Your task to perform on an android device: Open Google Maps and go to "Timeline" Image 0: 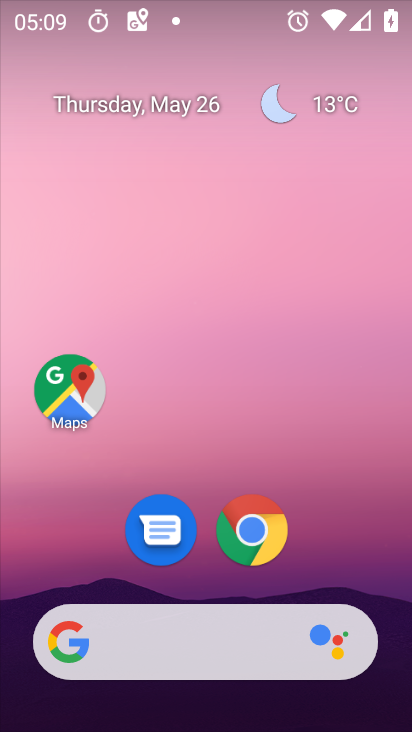
Step 0: drag from (222, 611) to (261, 82)
Your task to perform on an android device: Open Google Maps and go to "Timeline" Image 1: 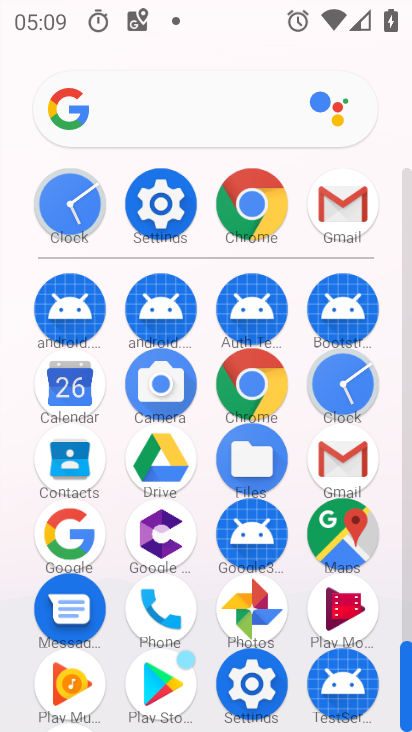
Step 1: click (323, 531)
Your task to perform on an android device: Open Google Maps and go to "Timeline" Image 2: 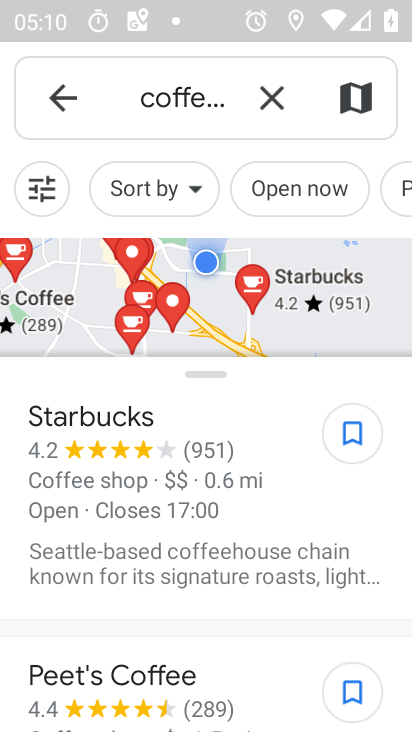
Step 2: press back button
Your task to perform on an android device: Open Google Maps and go to "Timeline" Image 3: 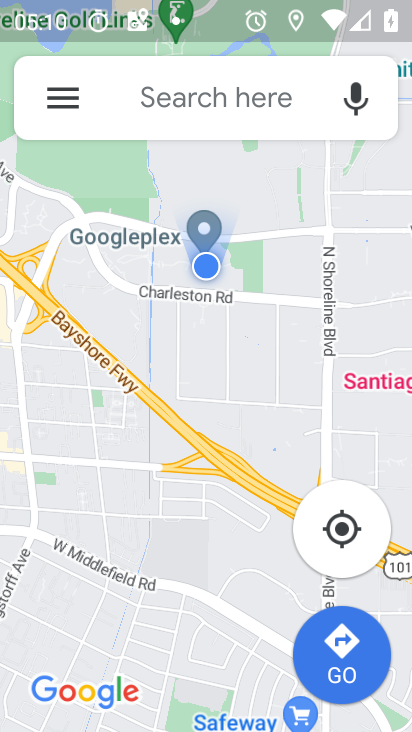
Step 3: click (42, 98)
Your task to perform on an android device: Open Google Maps and go to "Timeline" Image 4: 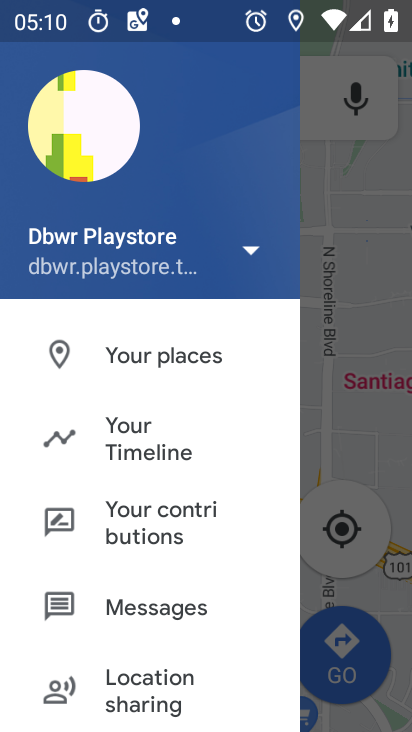
Step 4: click (135, 453)
Your task to perform on an android device: Open Google Maps and go to "Timeline" Image 5: 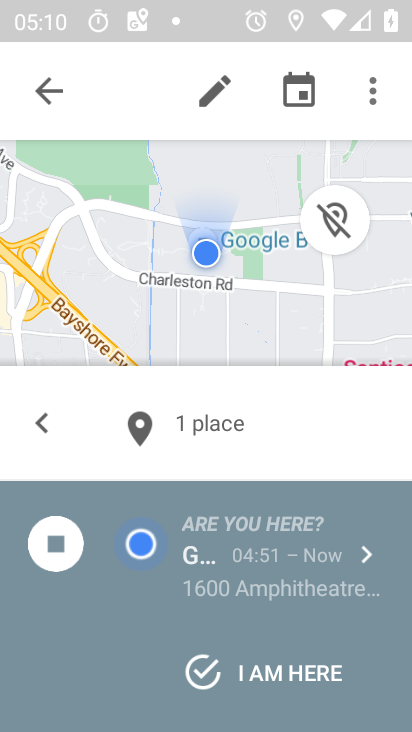
Step 5: task complete